Your task to perform on an android device: install app "LinkedIn" Image 0: 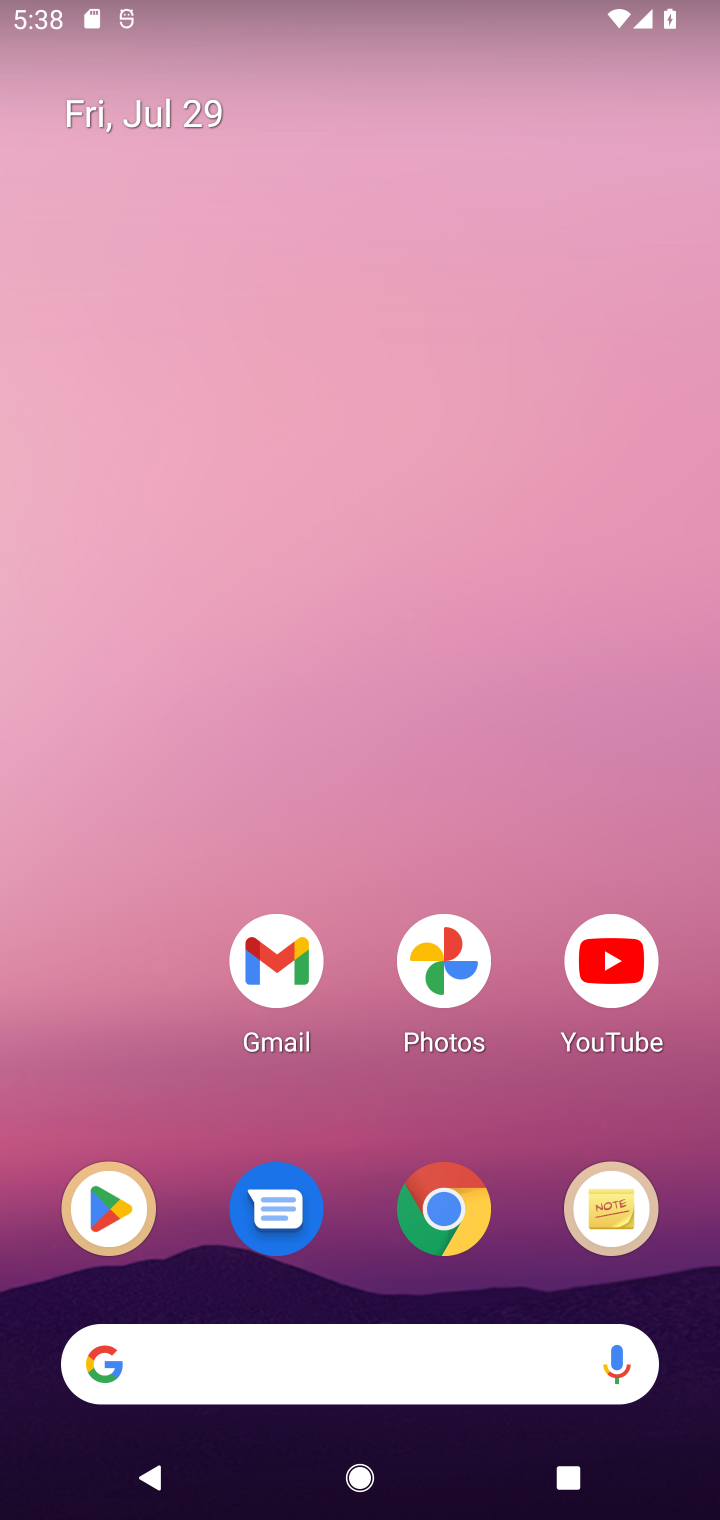
Step 0: click (81, 1237)
Your task to perform on an android device: install app "LinkedIn" Image 1: 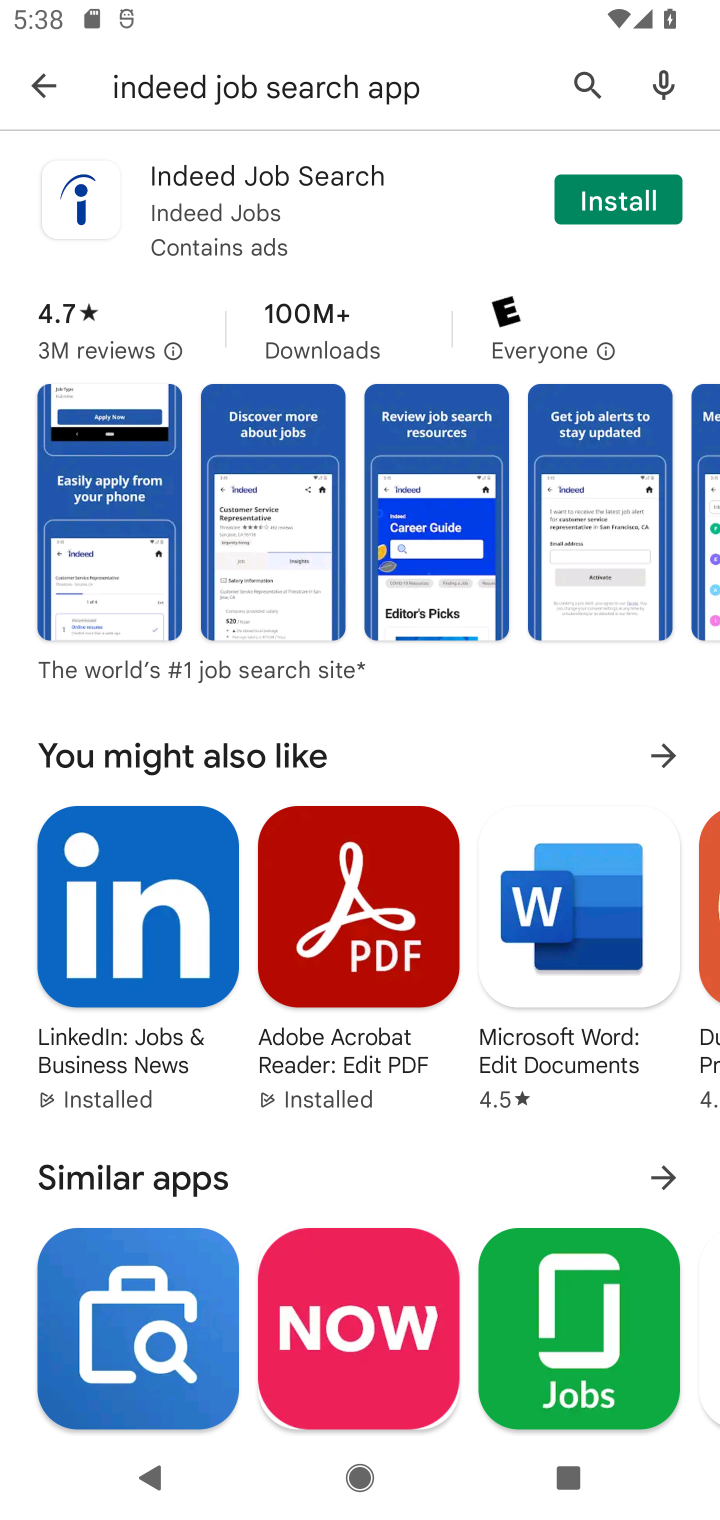
Step 1: click (579, 85)
Your task to perform on an android device: install app "LinkedIn" Image 2: 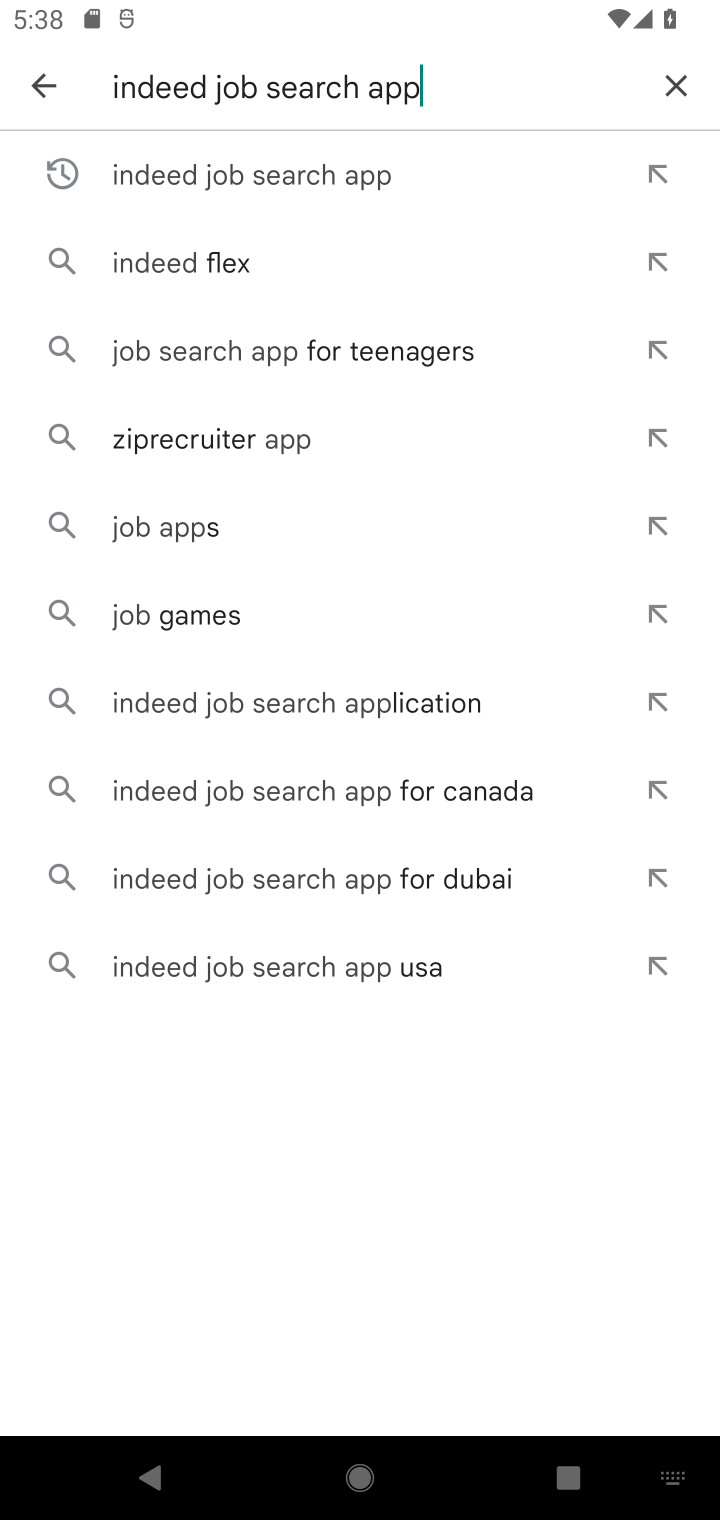
Step 2: click (685, 96)
Your task to perform on an android device: install app "LinkedIn" Image 3: 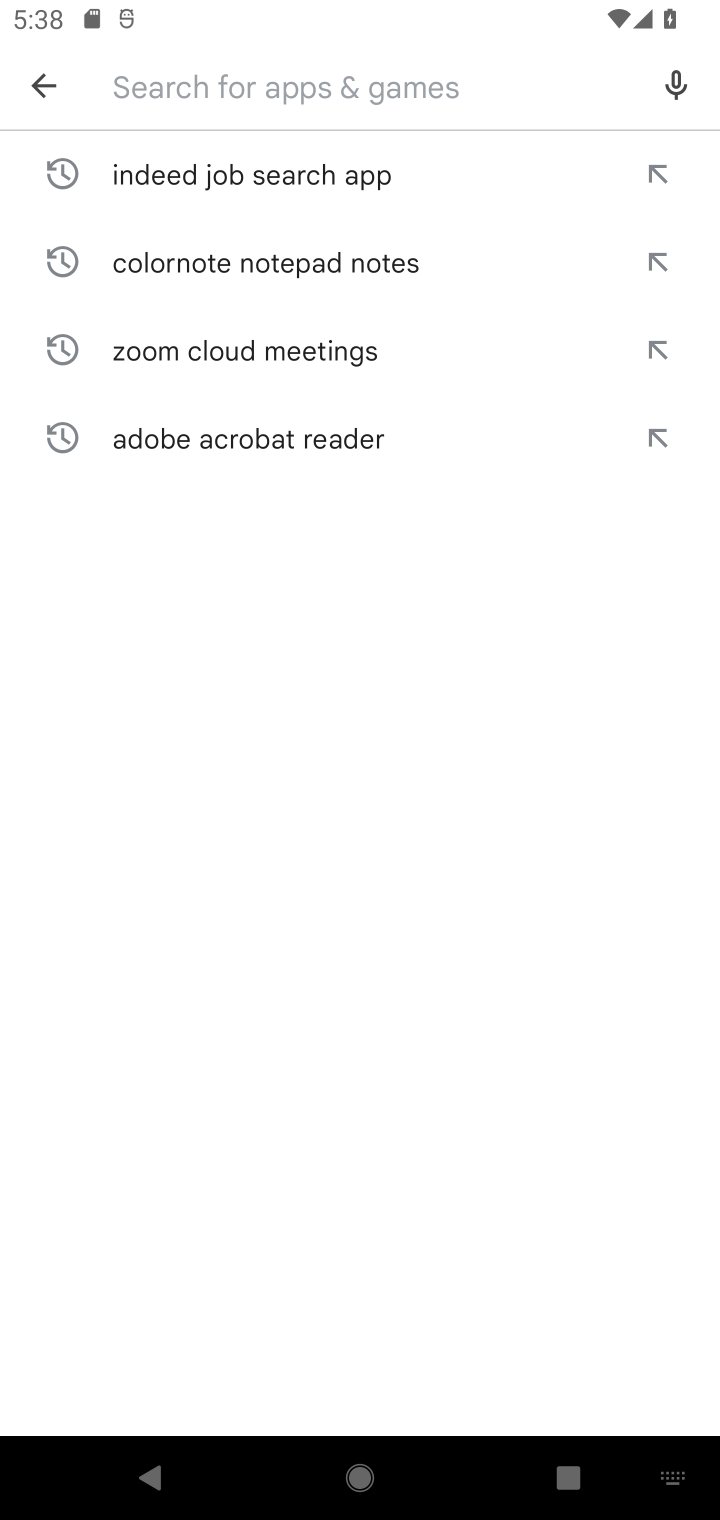
Step 3: type ""LinkedIn"
Your task to perform on an android device: install app "LinkedIn" Image 4: 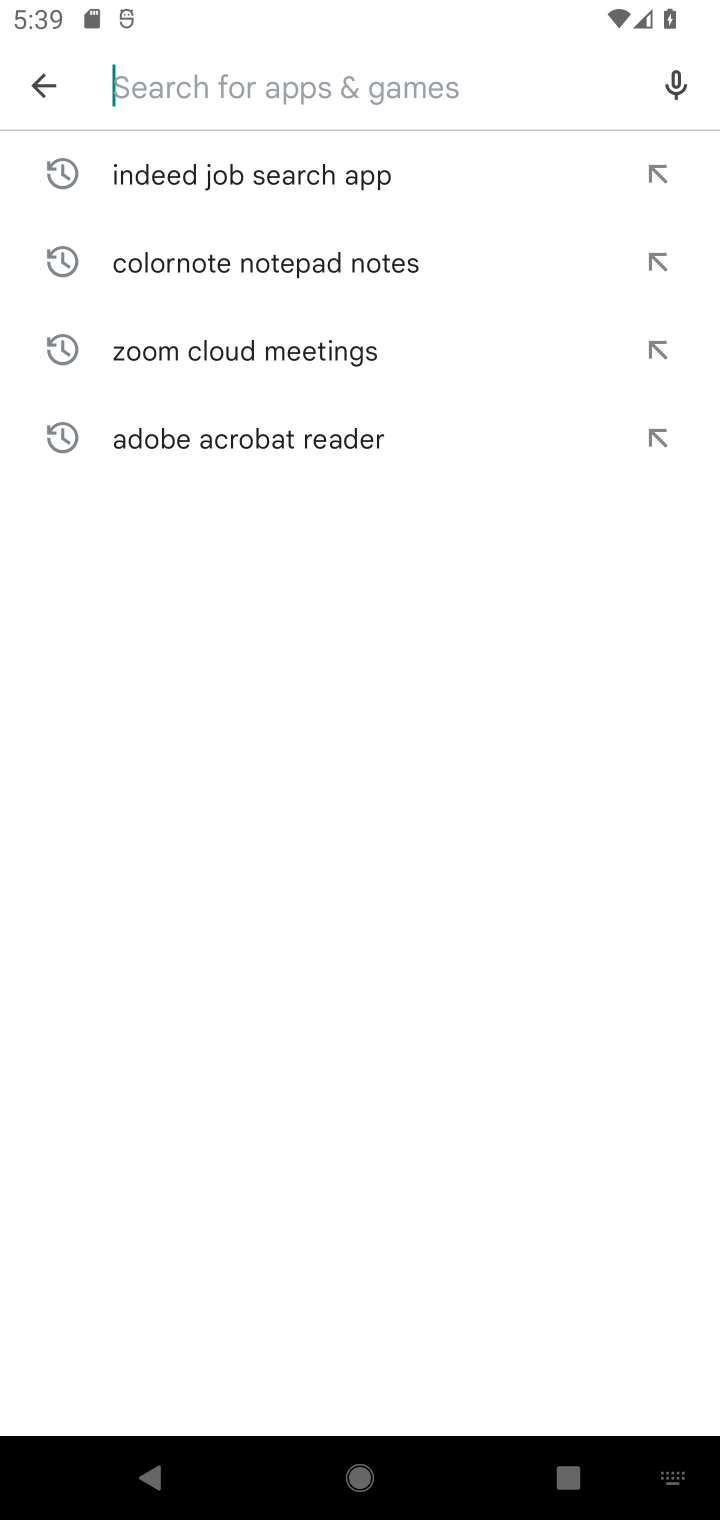
Step 4: type ""LinkedIn"
Your task to perform on an android device: install app "LinkedIn" Image 5: 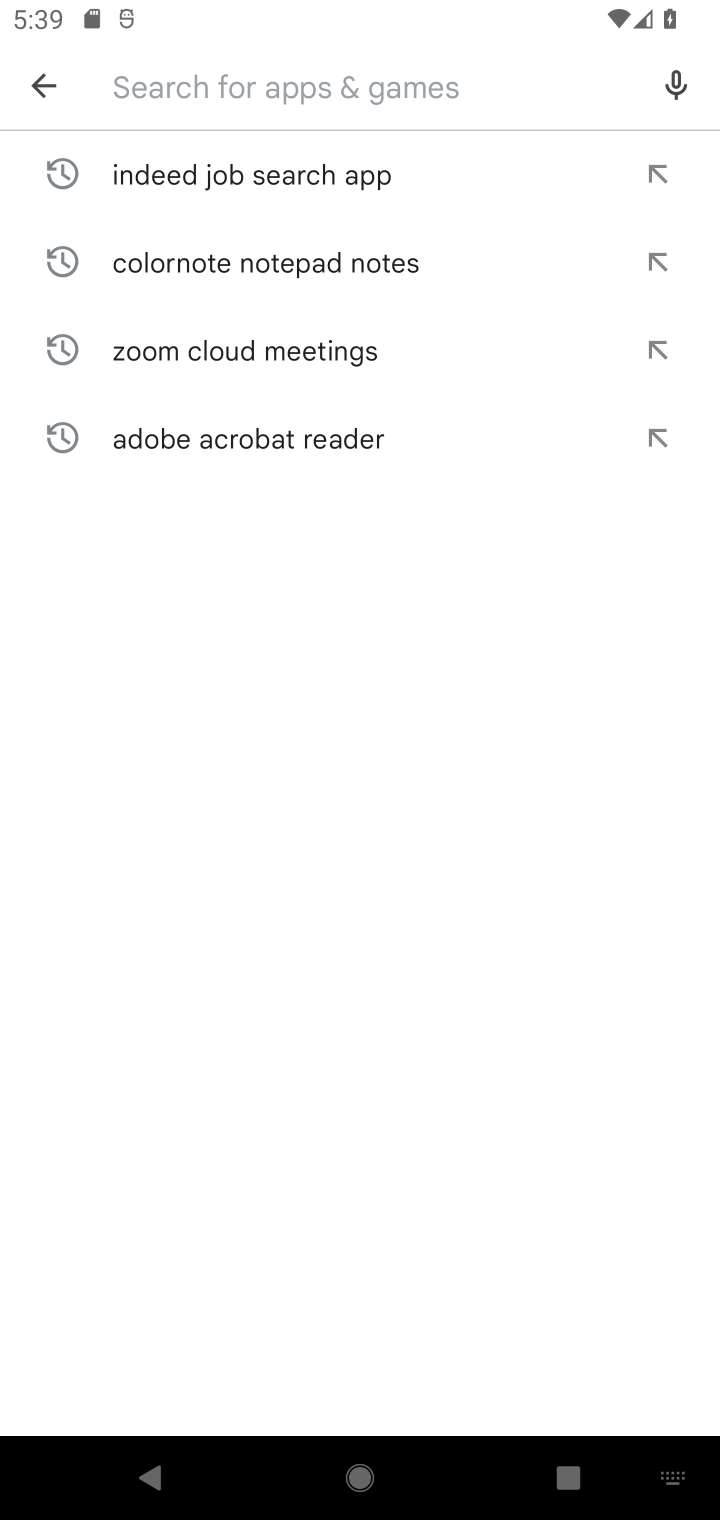
Step 5: click (243, 82)
Your task to perform on an android device: install app "LinkedIn" Image 6: 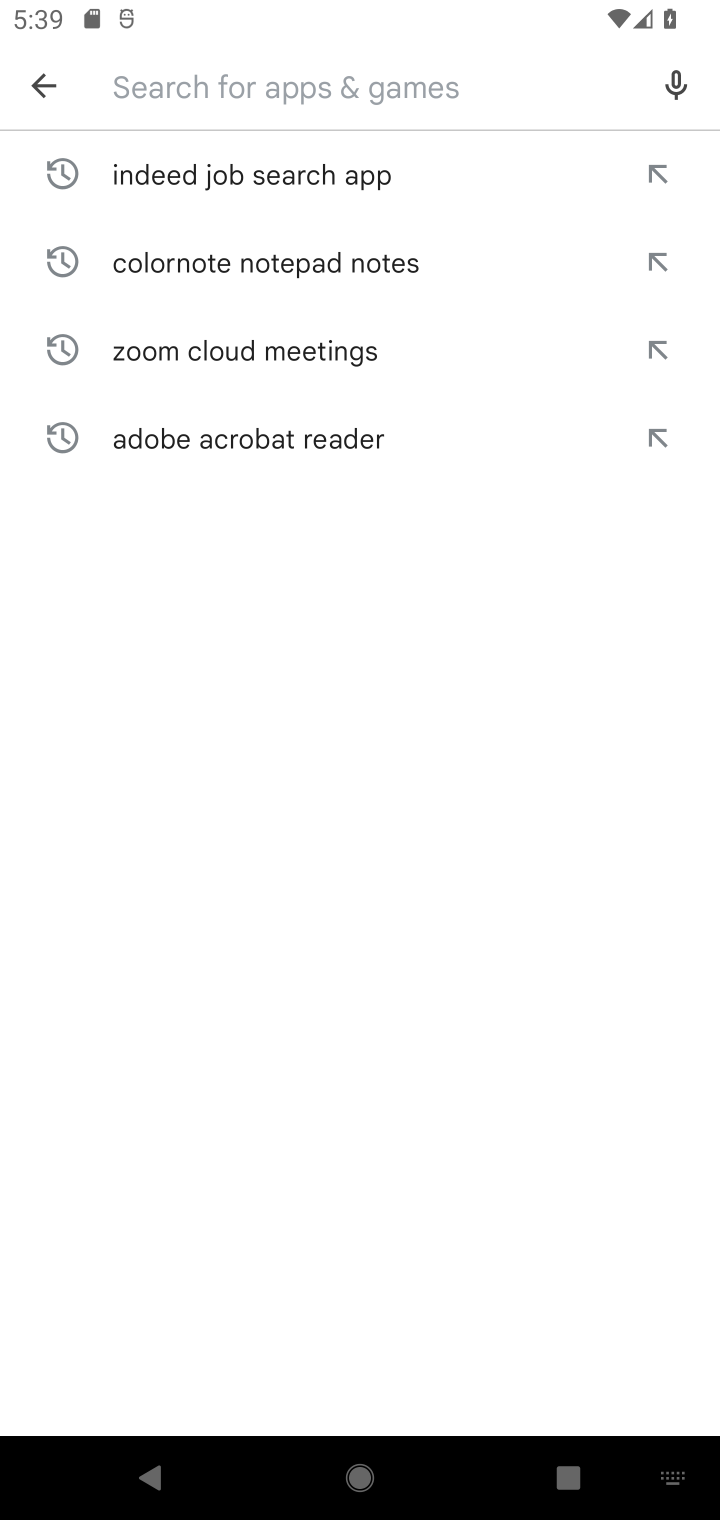
Step 6: type ""LinkedIn"
Your task to perform on an android device: install app "LinkedIn" Image 7: 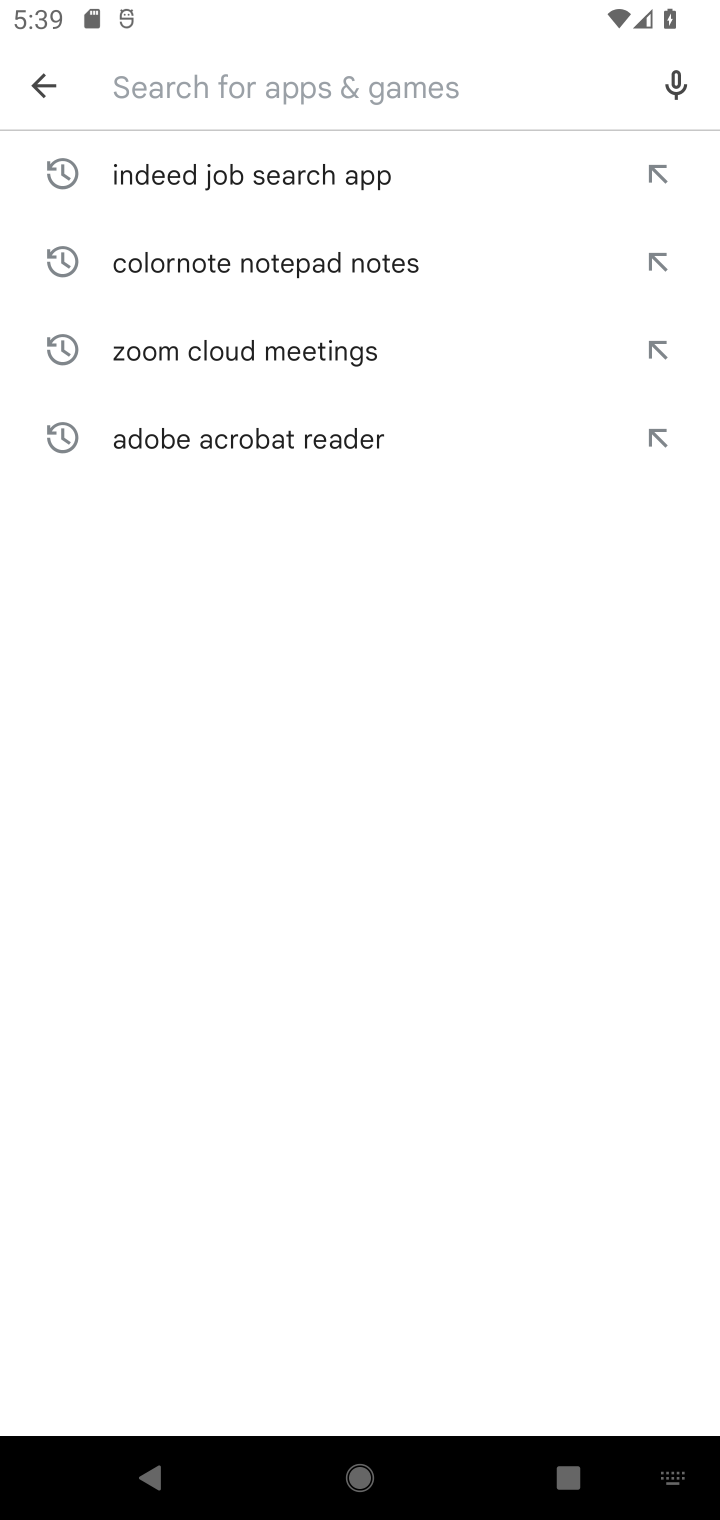
Step 7: click (46, 71)
Your task to perform on an android device: install app "LinkedIn" Image 8: 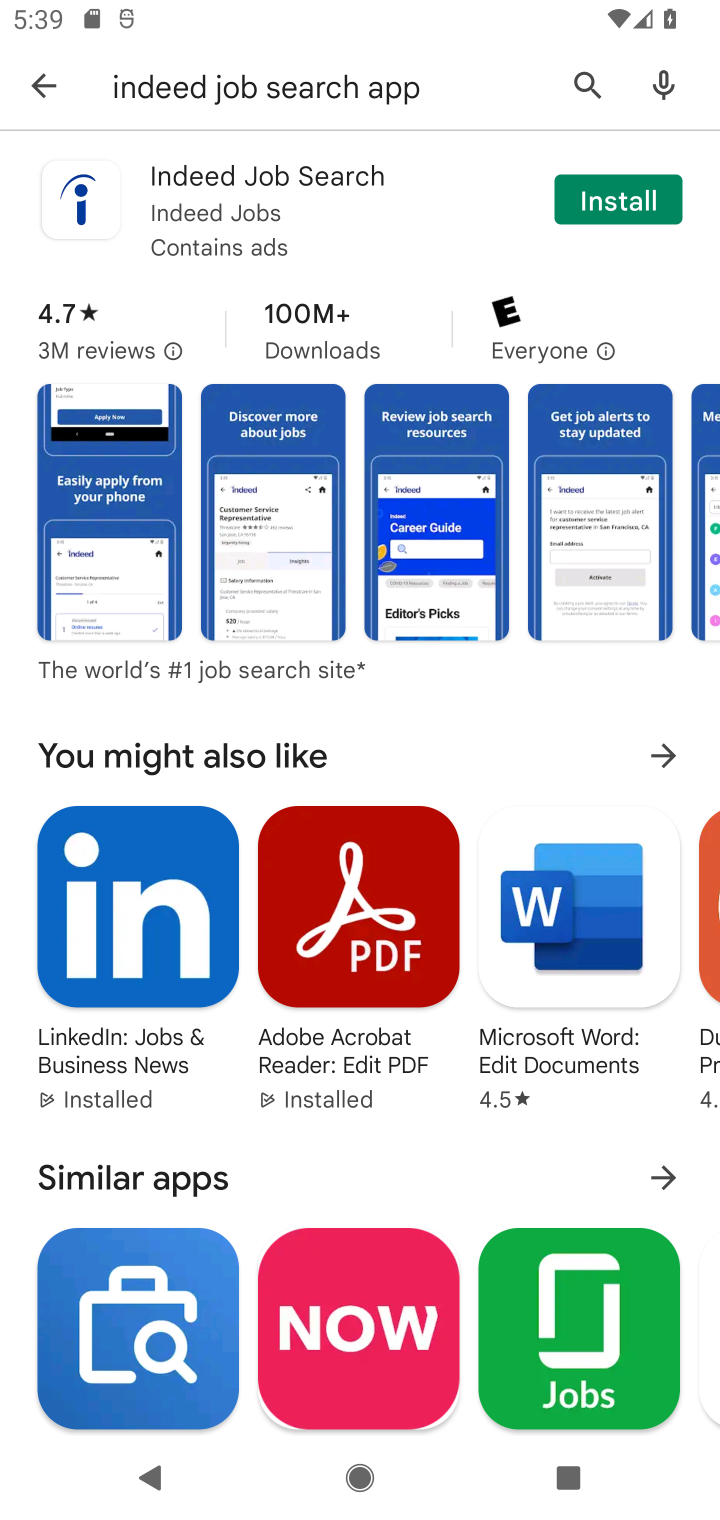
Step 8: click (591, 82)
Your task to perform on an android device: install app "LinkedIn" Image 9: 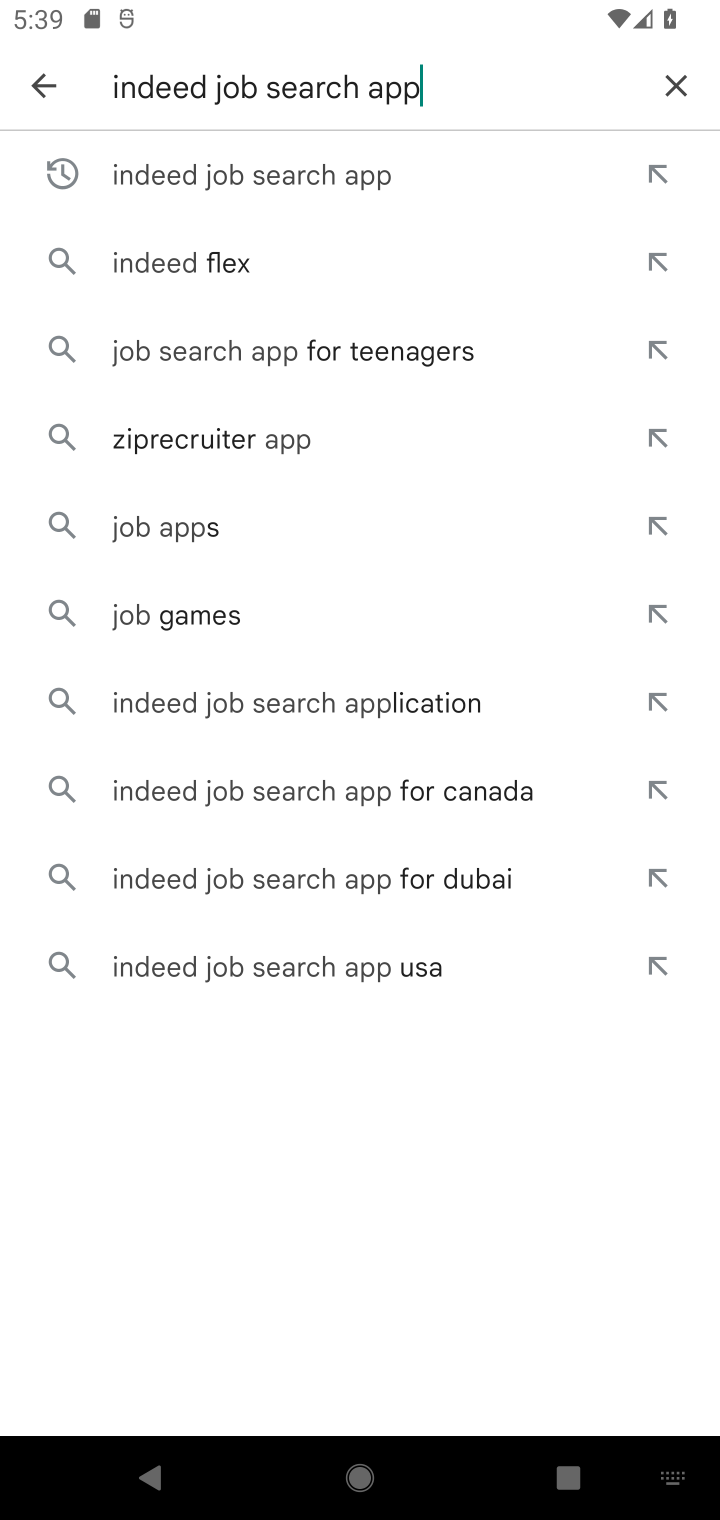
Step 9: click (665, 96)
Your task to perform on an android device: install app "LinkedIn" Image 10: 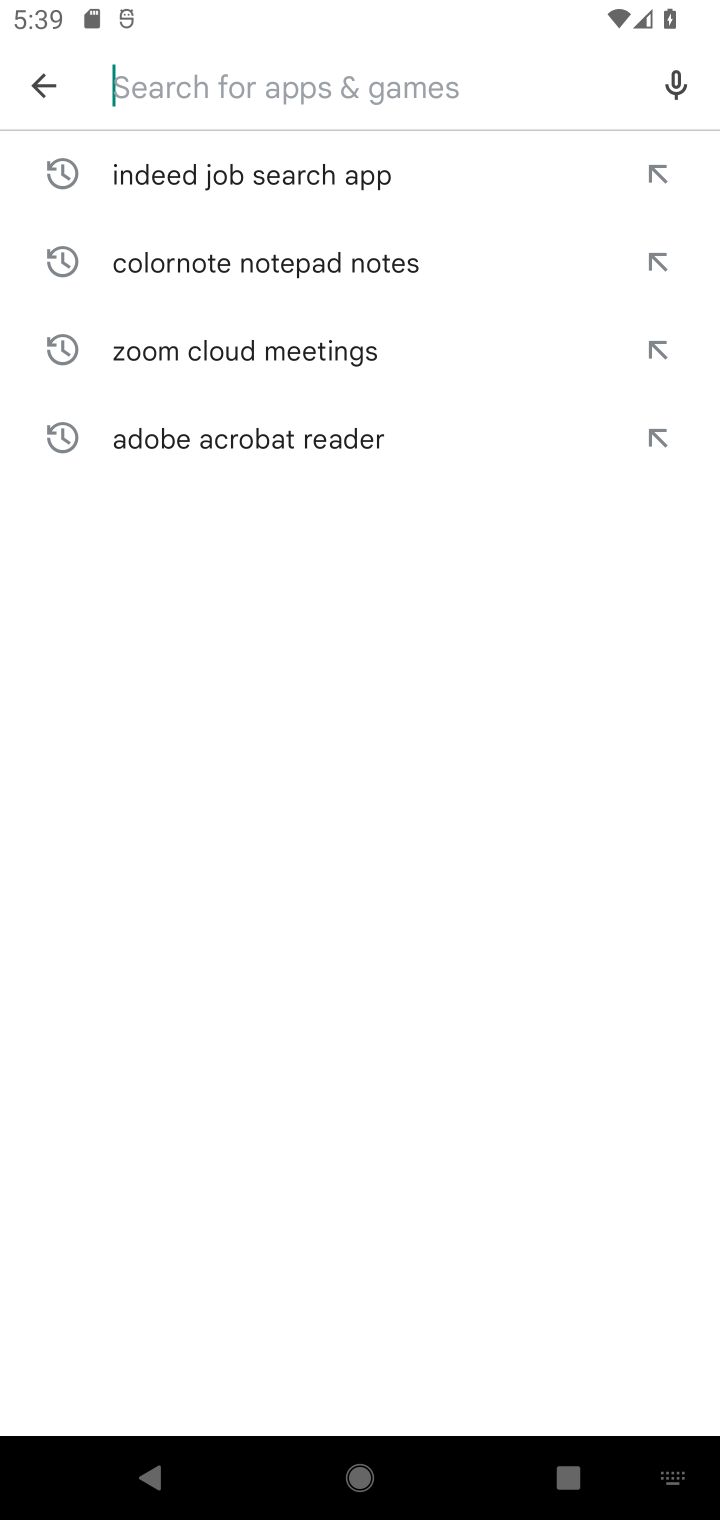
Step 10: click (460, 90)
Your task to perform on an android device: install app "LinkedIn" Image 11: 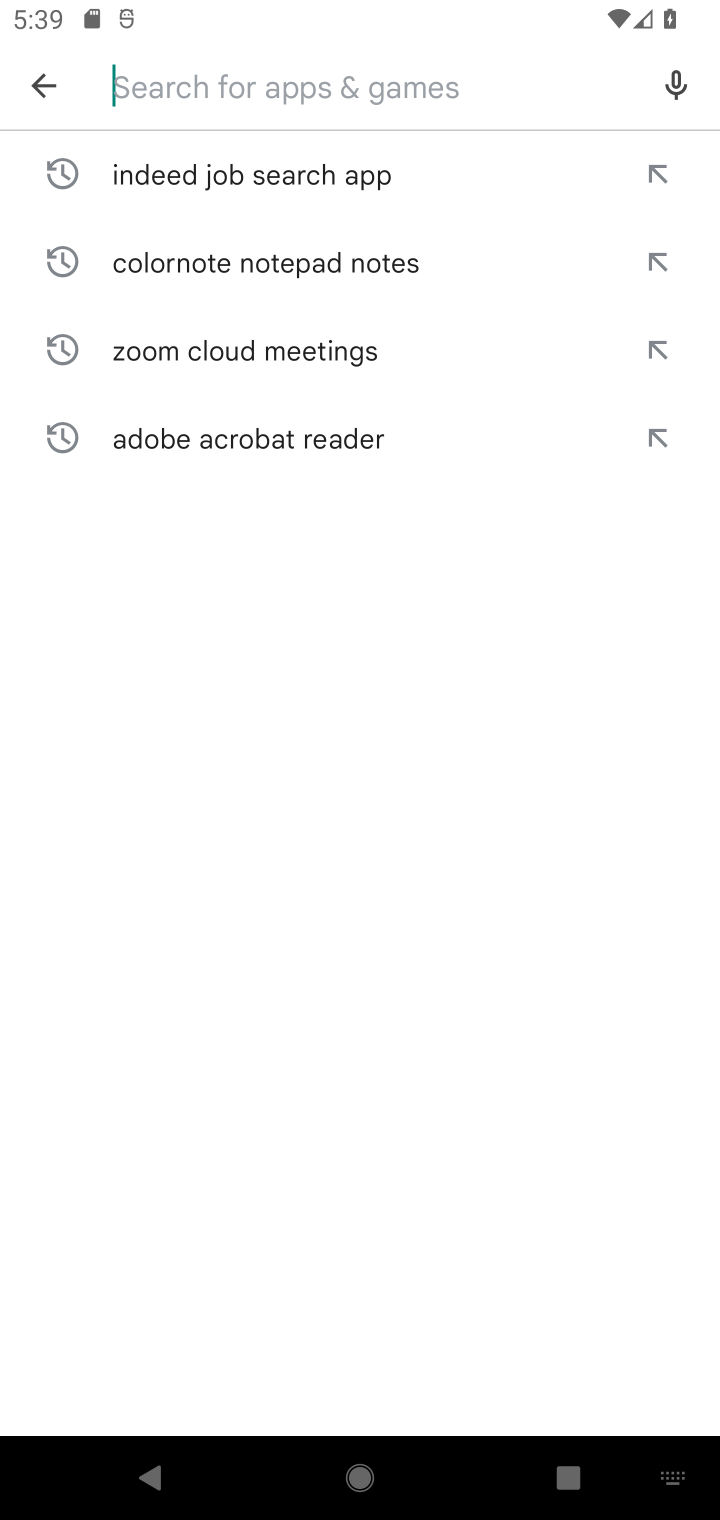
Step 11: type "LinkedIn"
Your task to perform on an android device: install app "LinkedIn" Image 12: 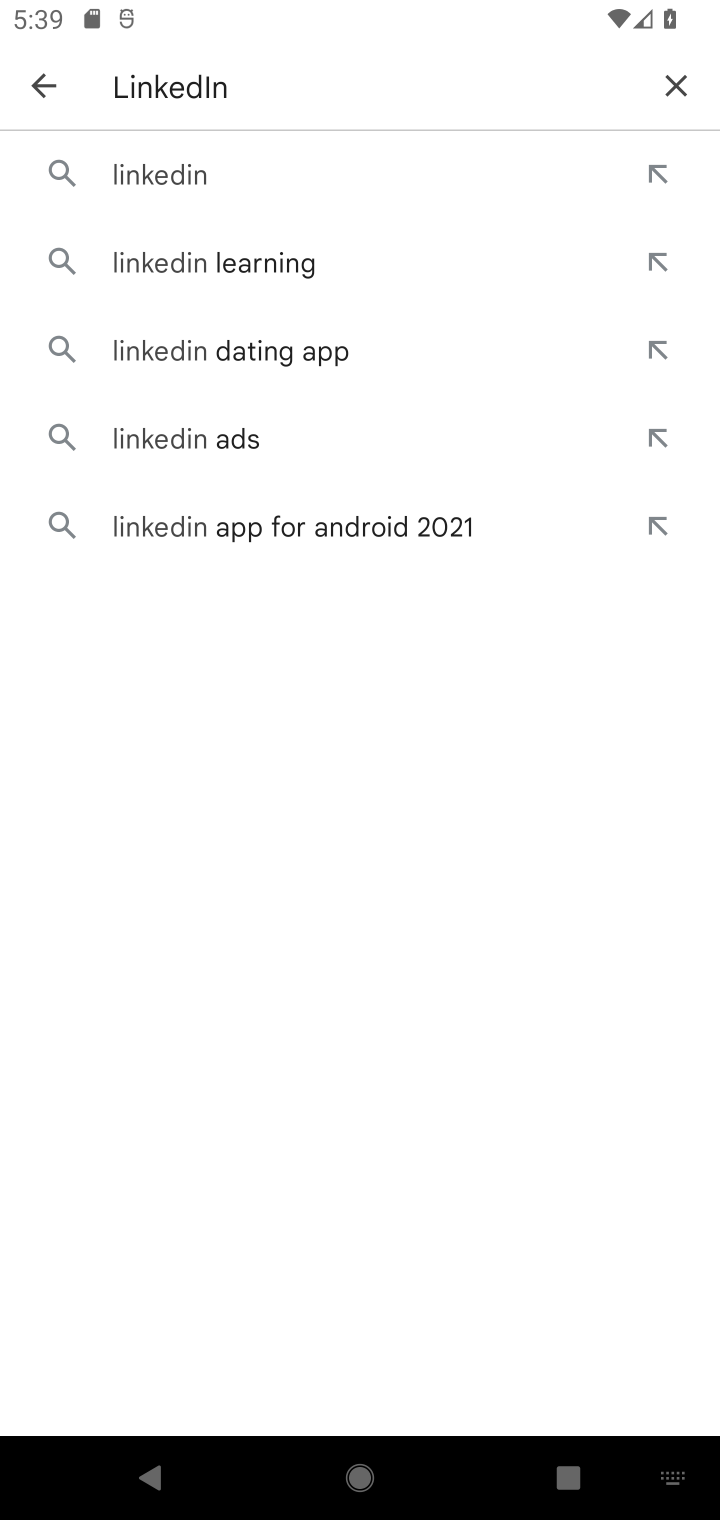
Step 12: click (151, 188)
Your task to perform on an android device: install app "LinkedIn" Image 13: 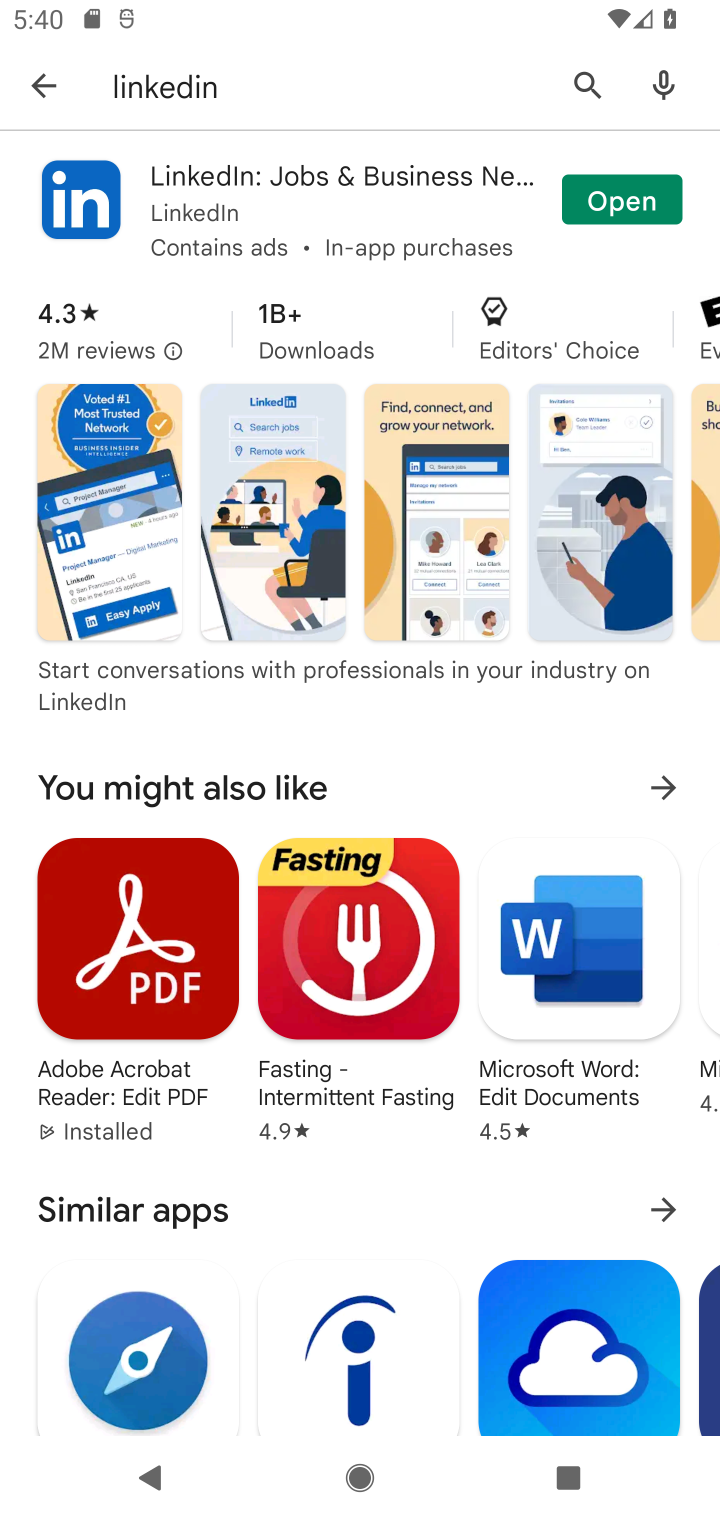
Step 13: task complete